Your task to perform on an android device: Open the calendar app, open the side menu, and click the "Day" option Image 0: 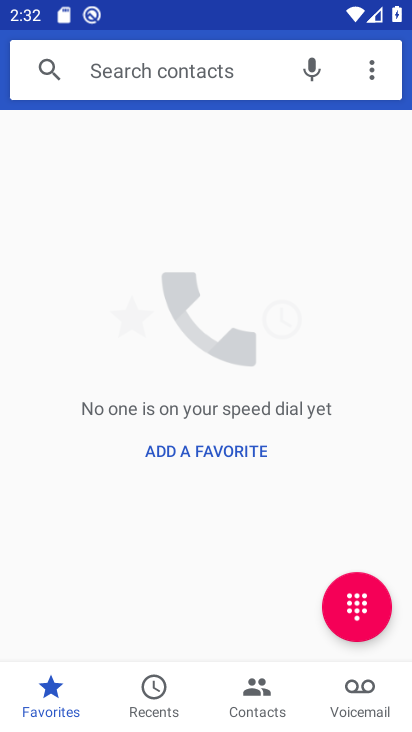
Step 0: press home button
Your task to perform on an android device: Open the calendar app, open the side menu, and click the "Day" option Image 1: 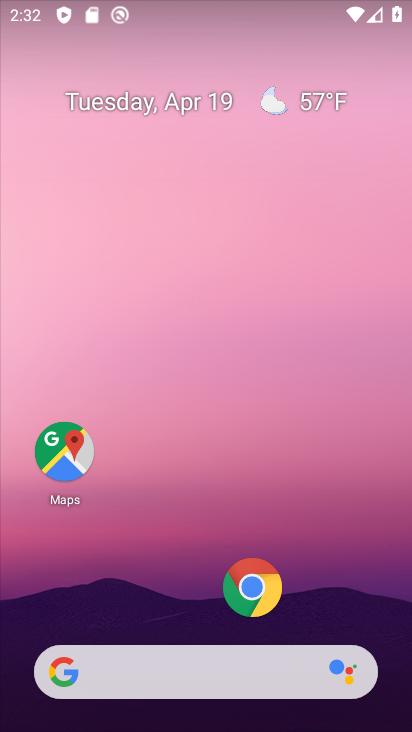
Step 1: drag from (172, 596) to (274, 0)
Your task to perform on an android device: Open the calendar app, open the side menu, and click the "Day" option Image 2: 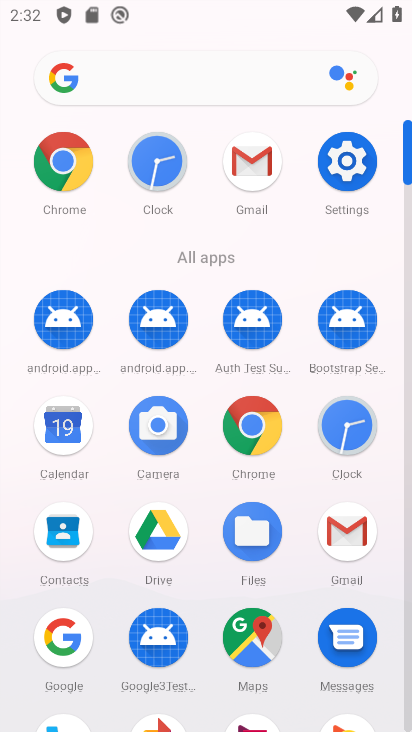
Step 2: click (75, 437)
Your task to perform on an android device: Open the calendar app, open the side menu, and click the "Day" option Image 3: 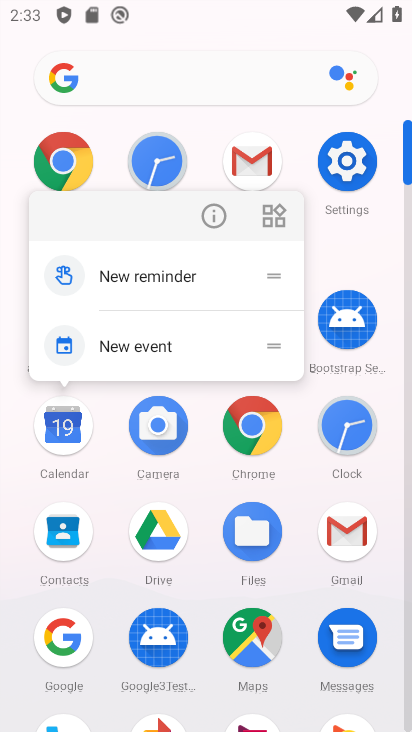
Step 3: click (77, 446)
Your task to perform on an android device: Open the calendar app, open the side menu, and click the "Day" option Image 4: 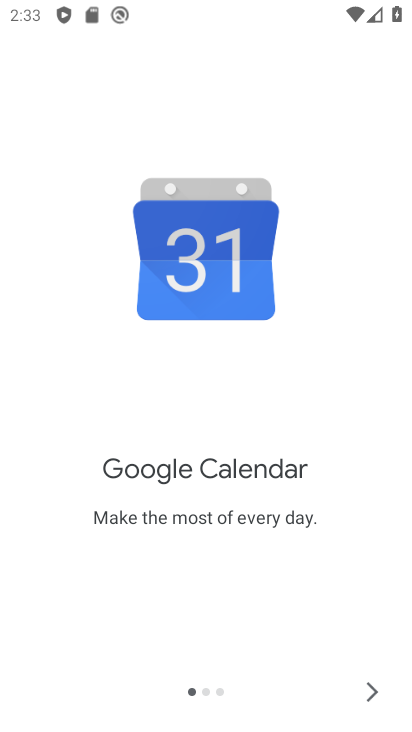
Step 4: click (367, 682)
Your task to perform on an android device: Open the calendar app, open the side menu, and click the "Day" option Image 5: 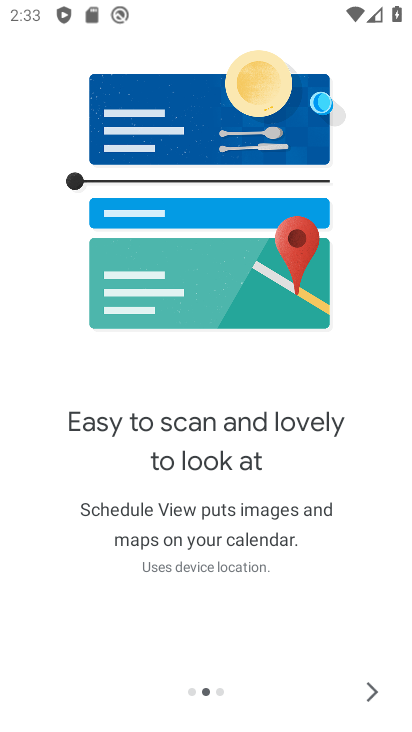
Step 5: click (367, 682)
Your task to perform on an android device: Open the calendar app, open the side menu, and click the "Day" option Image 6: 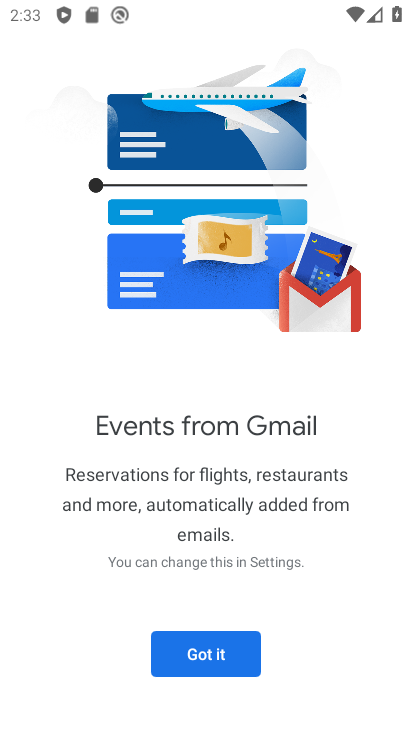
Step 6: click (171, 661)
Your task to perform on an android device: Open the calendar app, open the side menu, and click the "Day" option Image 7: 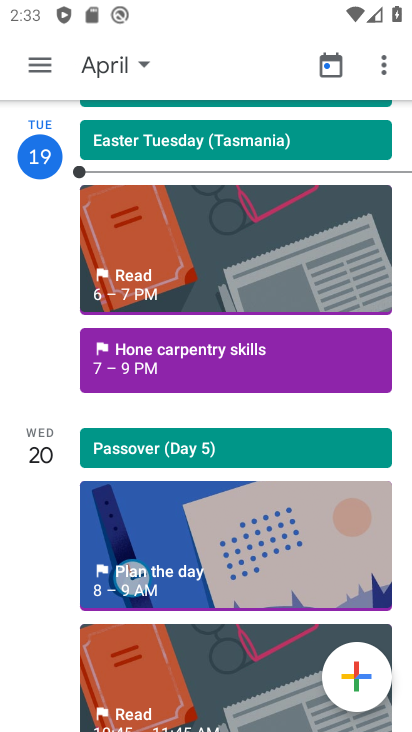
Step 7: click (43, 69)
Your task to perform on an android device: Open the calendar app, open the side menu, and click the "Day" option Image 8: 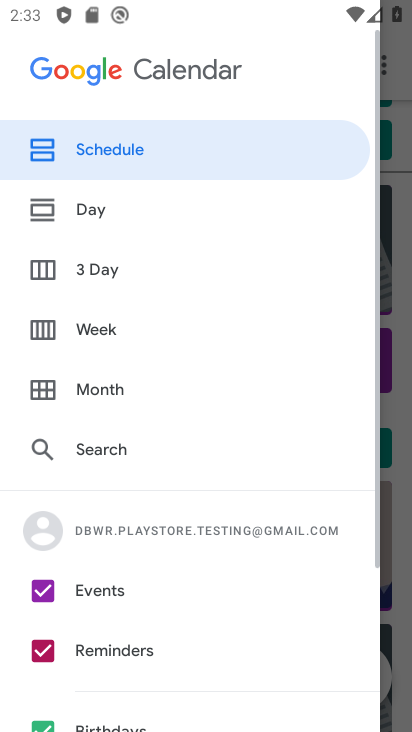
Step 8: click (100, 209)
Your task to perform on an android device: Open the calendar app, open the side menu, and click the "Day" option Image 9: 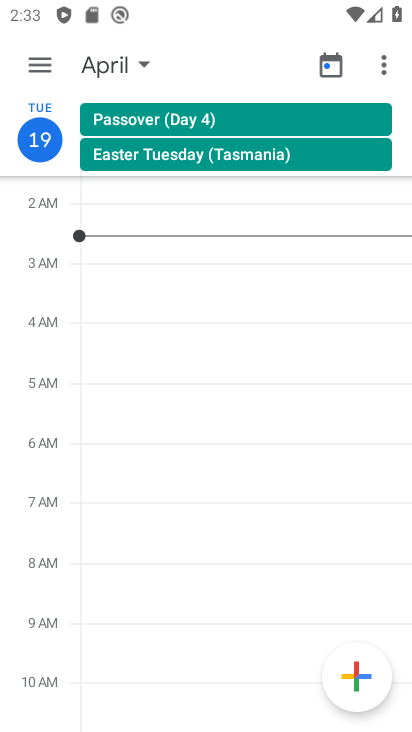
Step 9: task complete